Your task to perform on an android device: see tabs open on other devices in the chrome app Image 0: 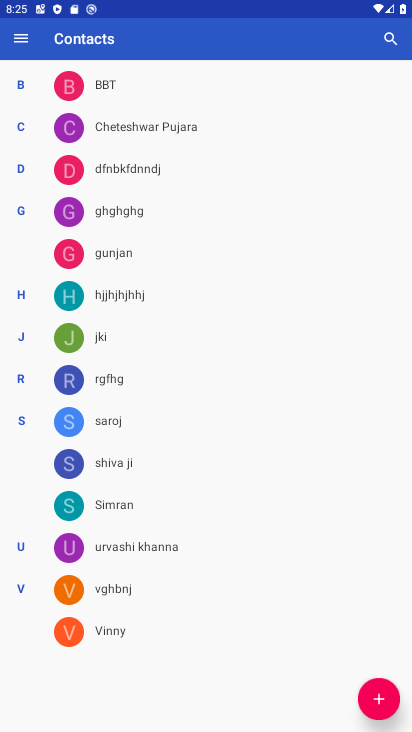
Step 0: press home button
Your task to perform on an android device: see tabs open on other devices in the chrome app Image 1: 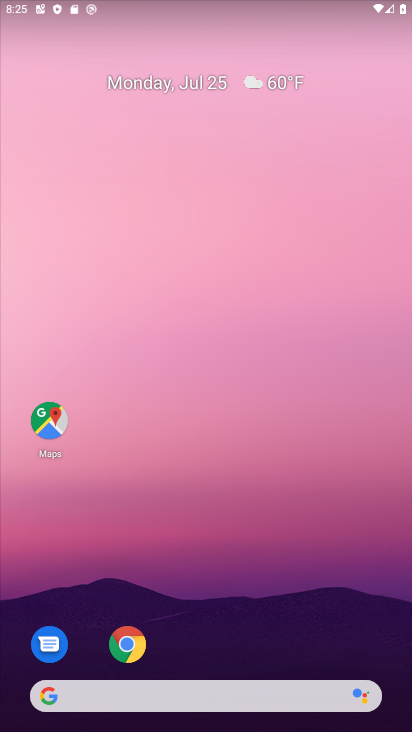
Step 1: drag from (277, 532) to (307, 71)
Your task to perform on an android device: see tabs open on other devices in the chrome app Image 2: 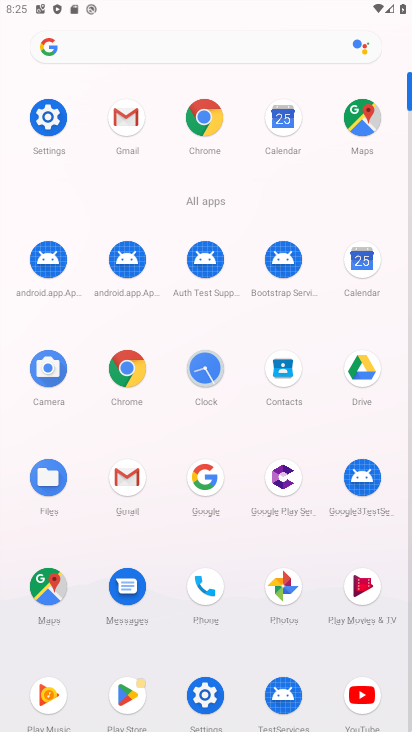
Step 2: click (213, 117)
Your task to perform on an android device: see tabs open on other devices in the chrome app Image 3: 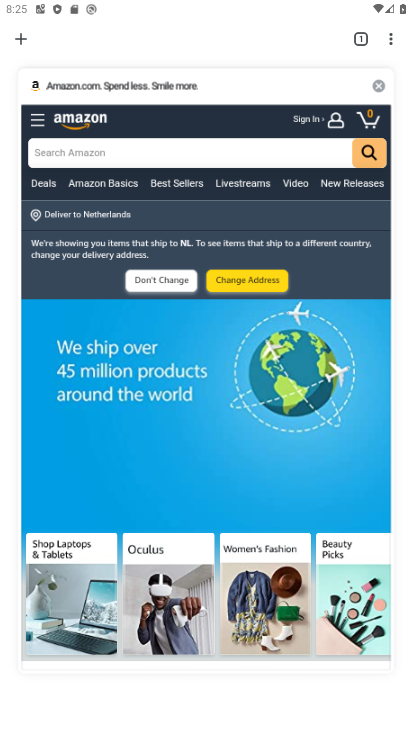
Step 3: task complete